Your task to perform on an android device: turn off sleep mode Image 0: 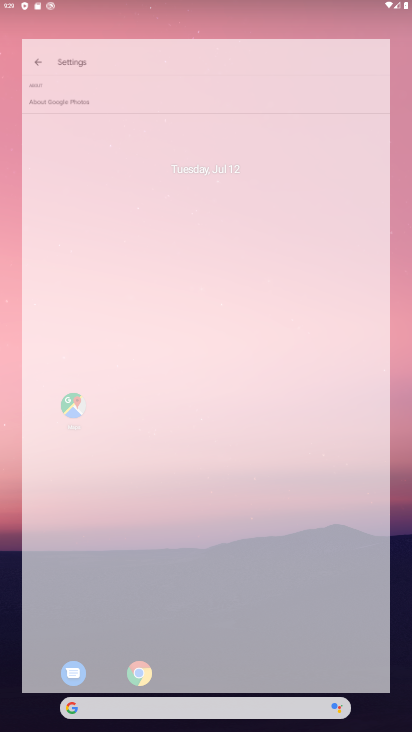
Step 0: drag from (393, 716) to (316, 248)
Your task to perform on an android device: turn off sleep mode Image 1: 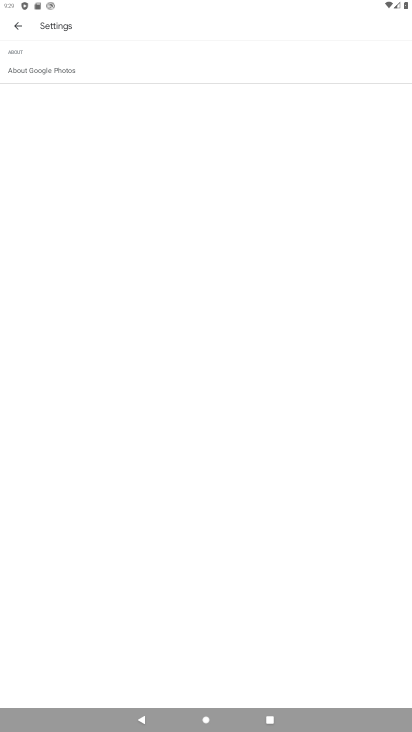
Step 1: press home button
Your task to perform on an android device: turn off sleep mode Image 2: 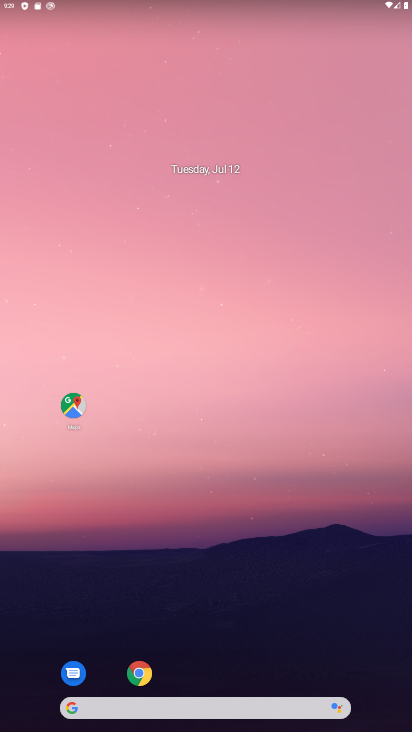
Step 2: drag from (396, 712) to (298, 189)
Your task to perform on an android device: turn off sleep mode Image 3: 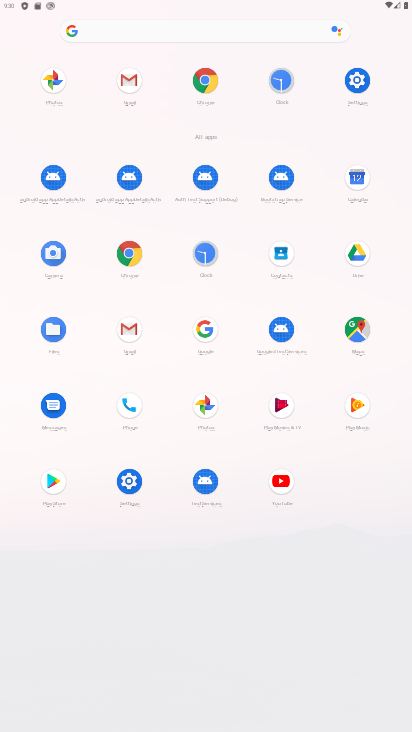
Step 3: click (356, 78)
Your task to perform on an android device: turn off sleep mode Image 4: 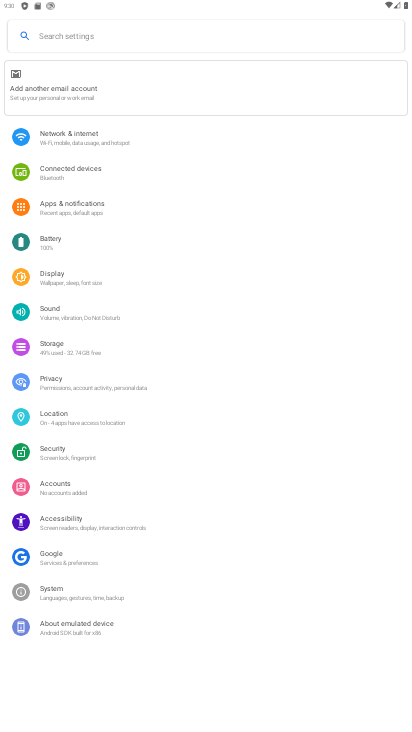
Step 4: click (50, 279)
Your task to perform on an android device: turn off sleep mode Image 5: 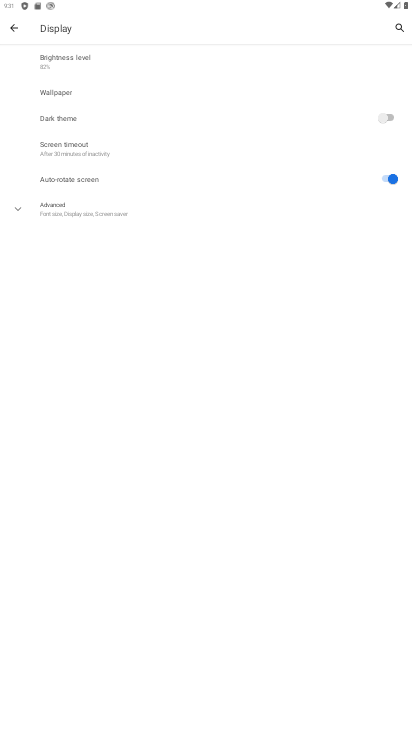
Step 5: click (81, 144)
Your task to perform on an android device: turn off sleep mode Image 6: 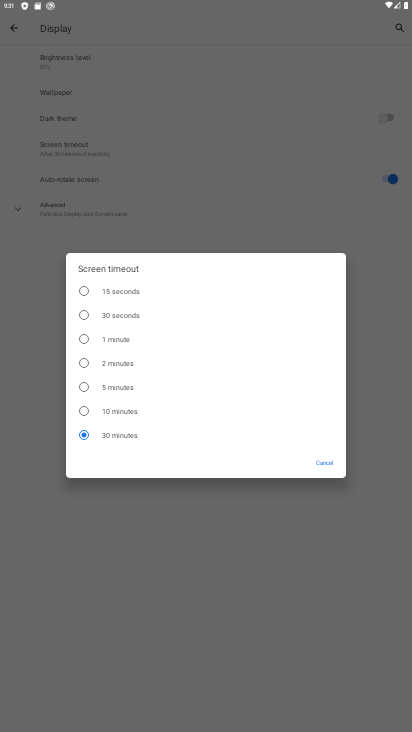
Step 6: task complete